Your task to perform on an android device: Go to internet settings Image 0: 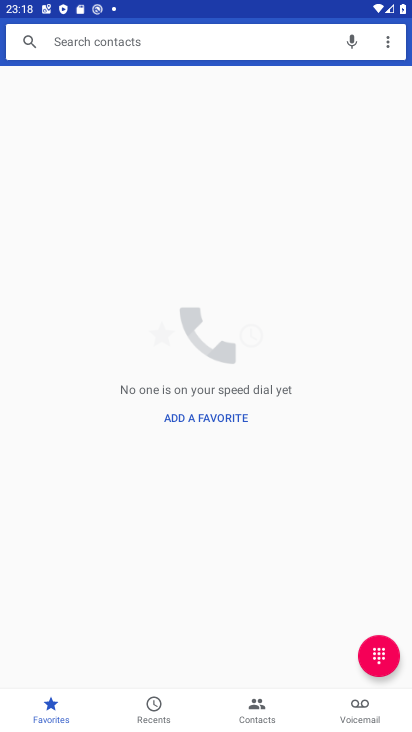
Step 0: press home button
Your task to perform on an android device: Go to internet settings Image 1: 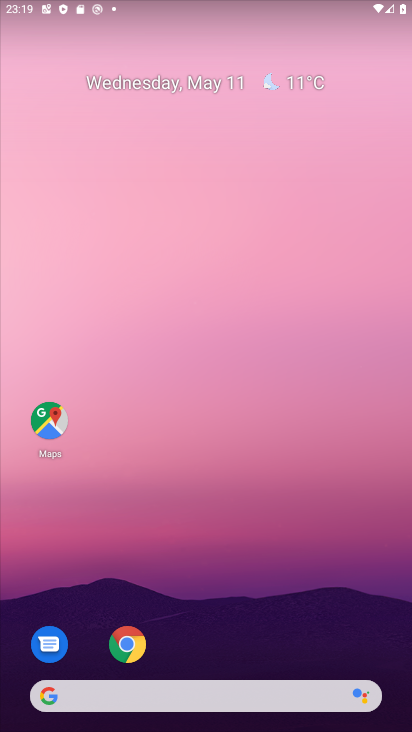
Step 1: drag from (204, 661) to (193, 85)
Your task to perform on an android device: Go to internet settings Image 2: 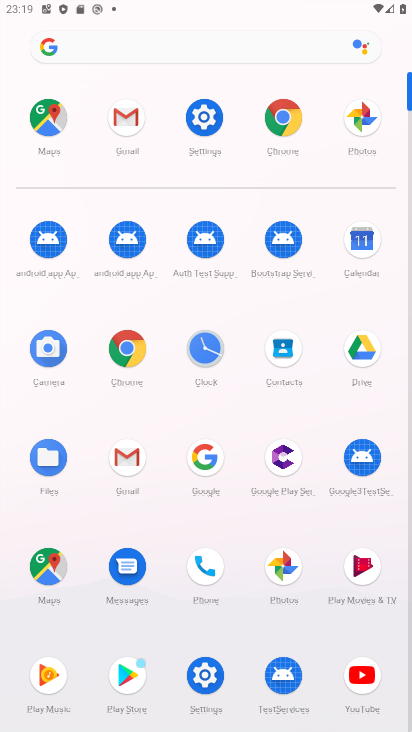
Step 2: click (204, 666)
Your task to perform on an android device: Go to internet settings Image 3: 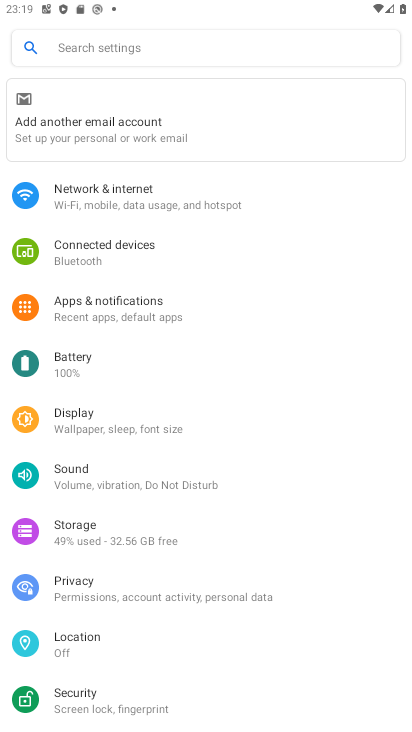
Step 3: click (166, 191)
Your task to perform on an android device: Go to internet settings Image 4: 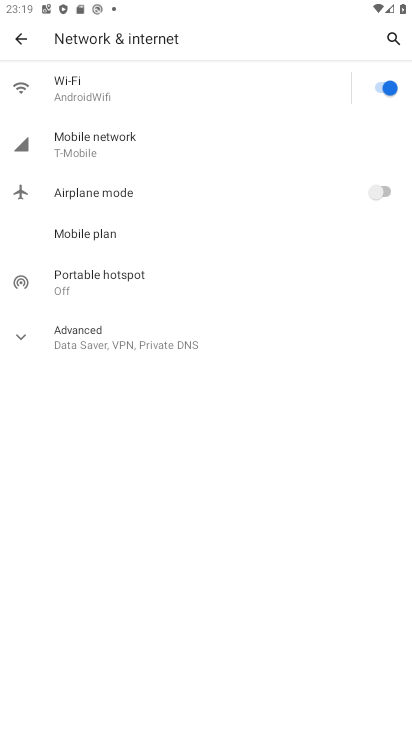
Step 4: click (17, 332)
Your task to perform on an android device: Go to internet settings Image 5: 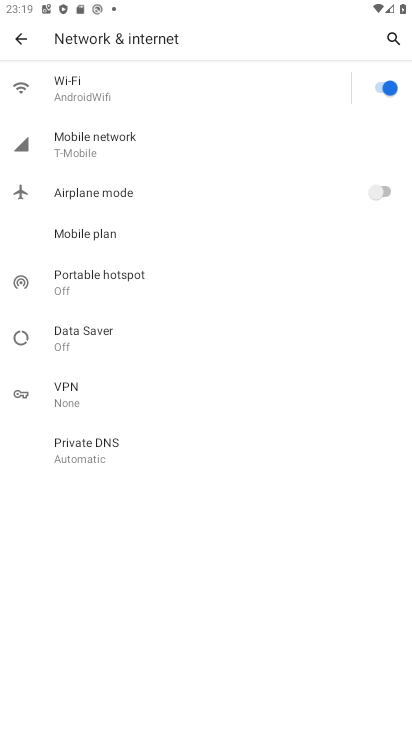
Step 5: task complete